Your task to perform on an android device: snooze an email in the gmail app Image 0: 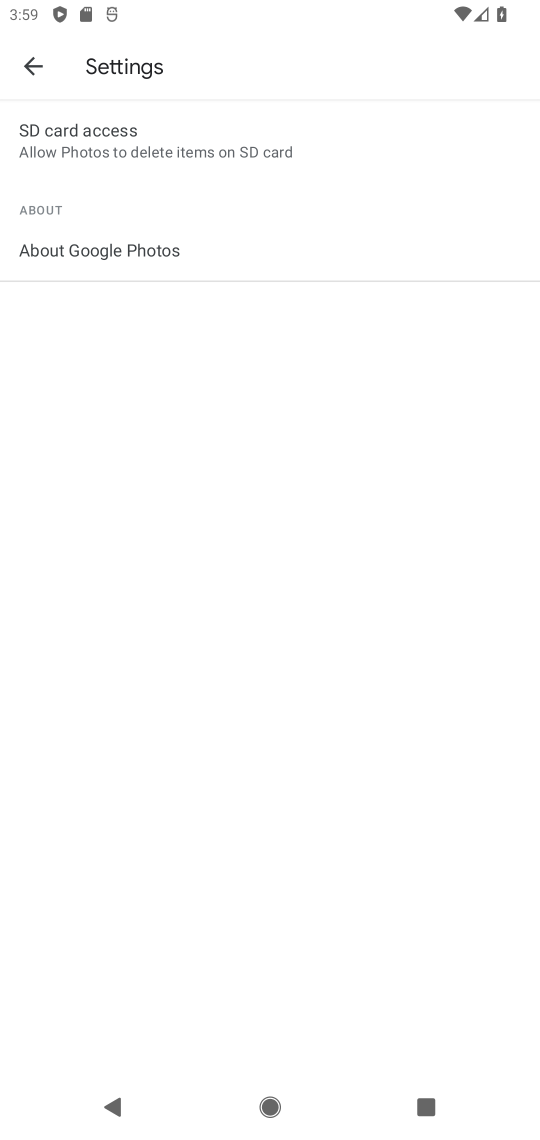
Step 0: press home button
Your task to perform on an android device: snooze an email in the gmail app Image 1: 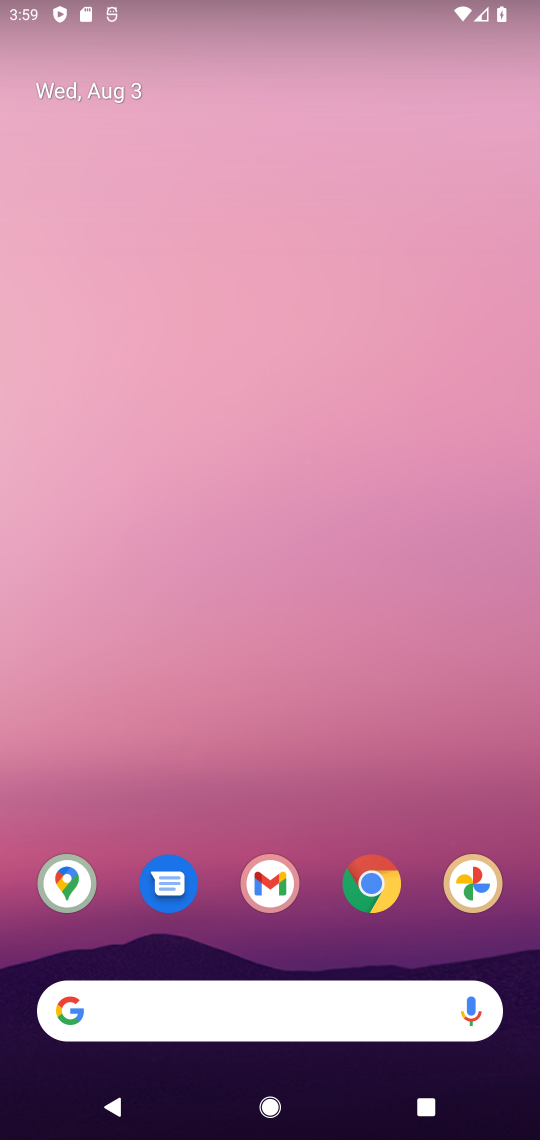
Step 1: click (270, 873)
Your task to perform on an android device: snooze an email in the gmail app Image 2: 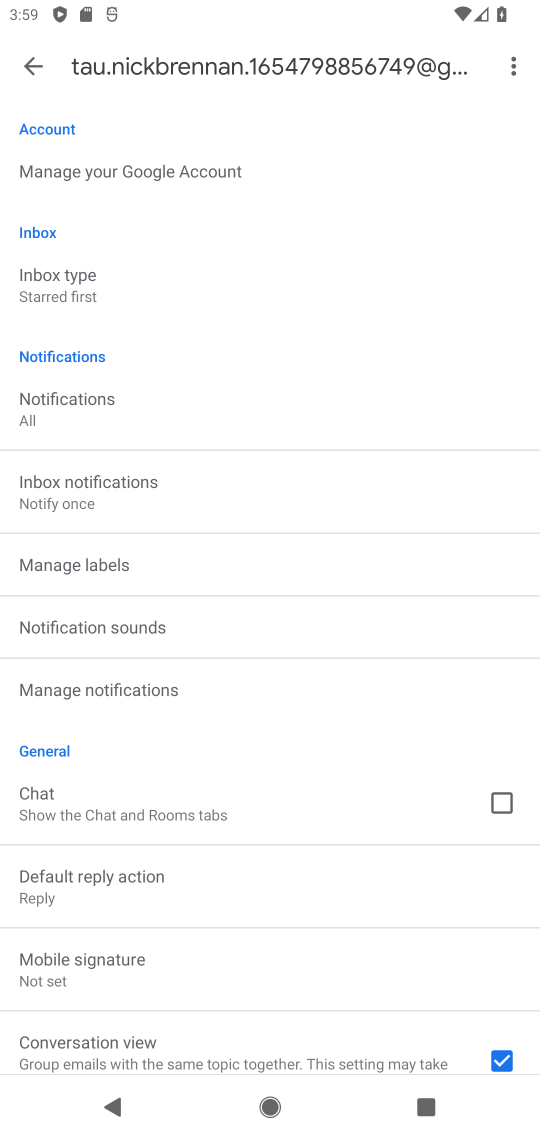
Step 2: click (42, 56)
Your task to perform on an android device: snooze an email in the gmail app Image 3: 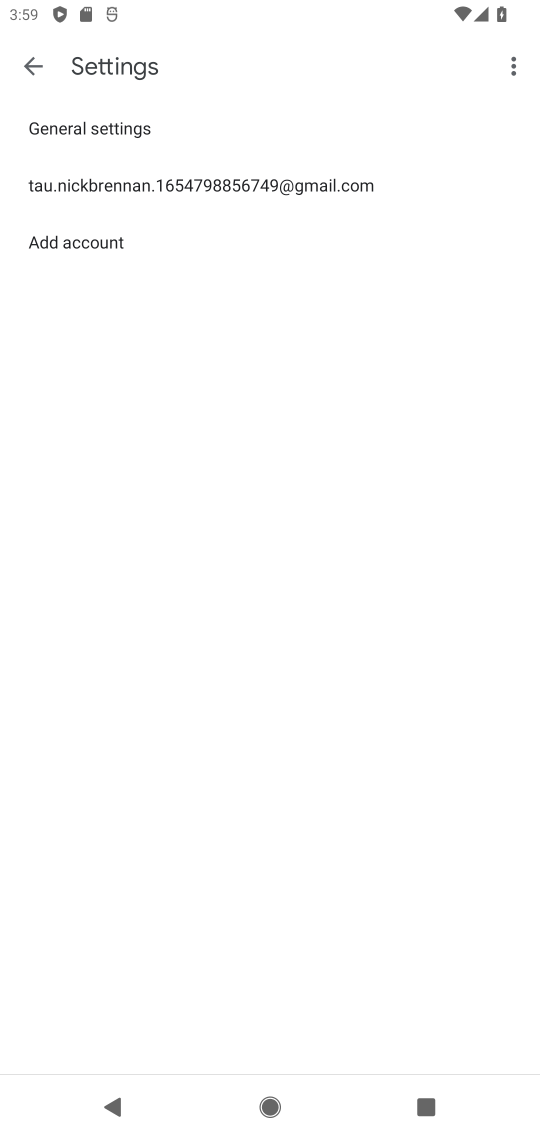
Step 3: click (32, 59)
Your task to perform on an android device: snooze an email in the gmail app Image 4: 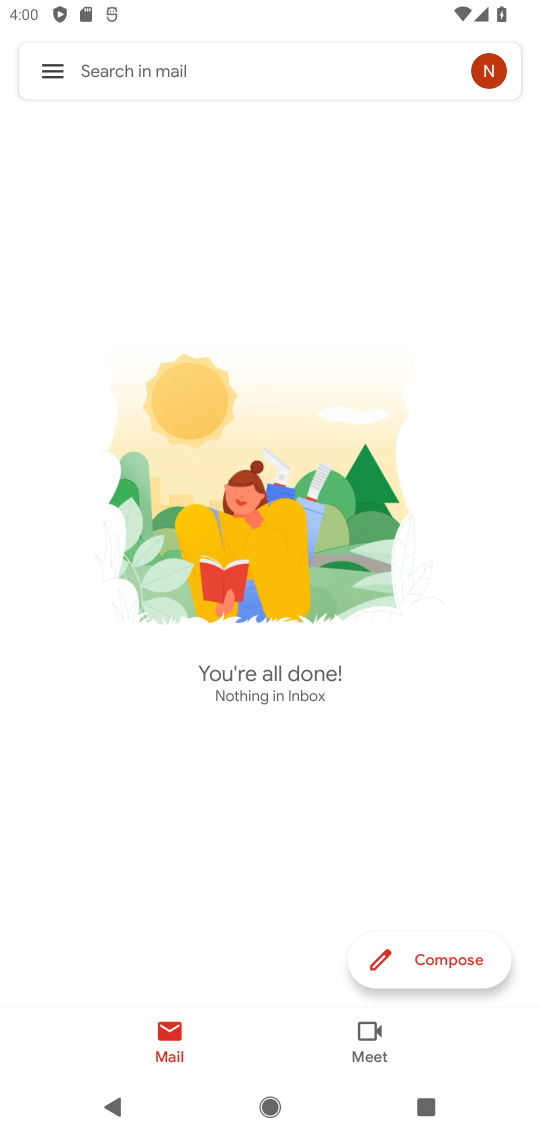
Step 4: click (52, 56)
Your task to perform on an android device: snooze an email in the gmail app Image 5: 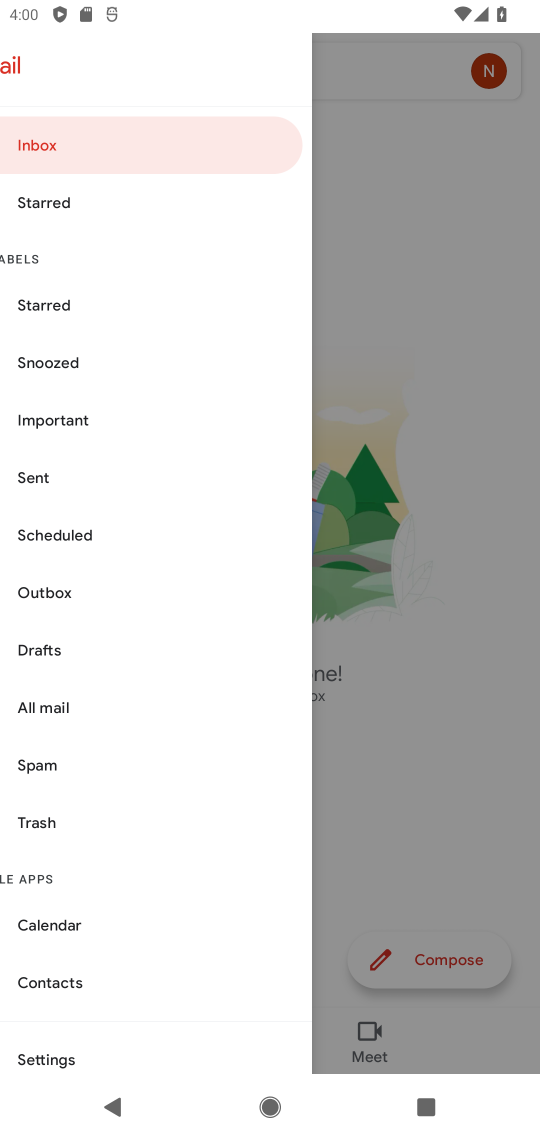
Step 5: click (53, 73)
Your task to perform on an android device: snooze an email in the gmail app Image 6: 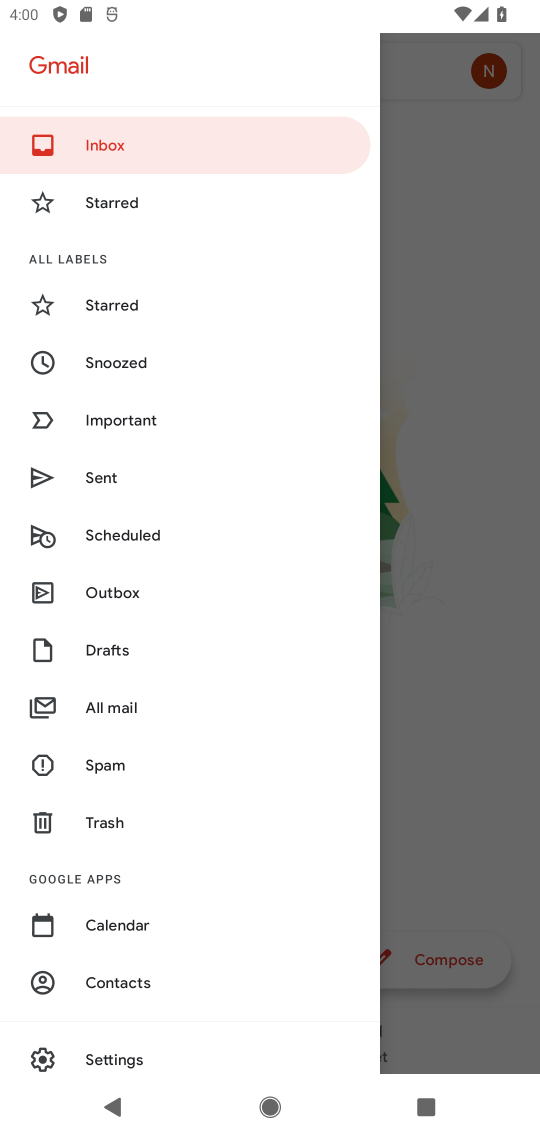
Step 6: task complete